Your task to perform on an android device: Open Amazon Image 0: 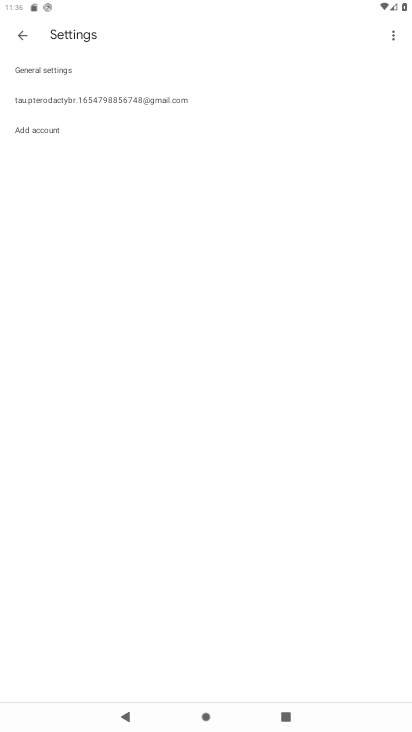
Step 0: press home button
Your task to perform on an android device: Open Amazon Image 1: 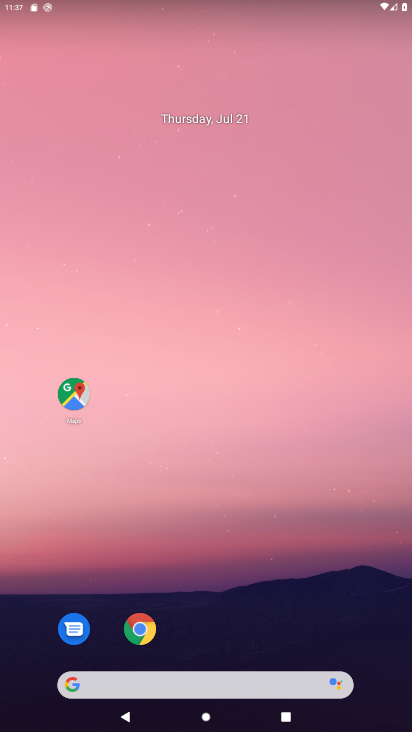
Step 1: click (143, 635)
Your task to perform on an android device: Open Amazon Image 2: 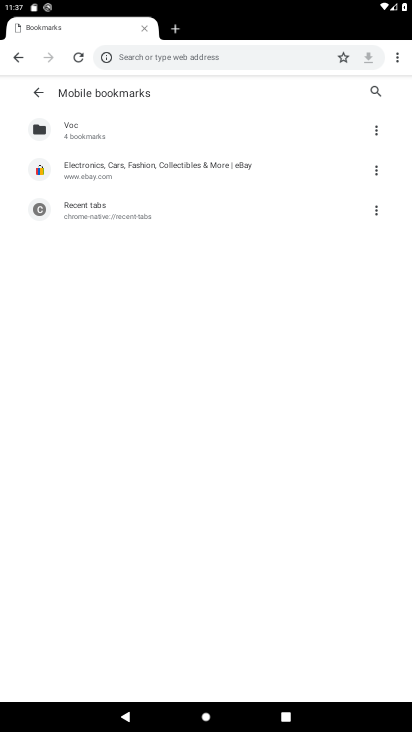
Step 2: click (165, 50)
Your task to perform on an android device: Open Amazon Image 3: 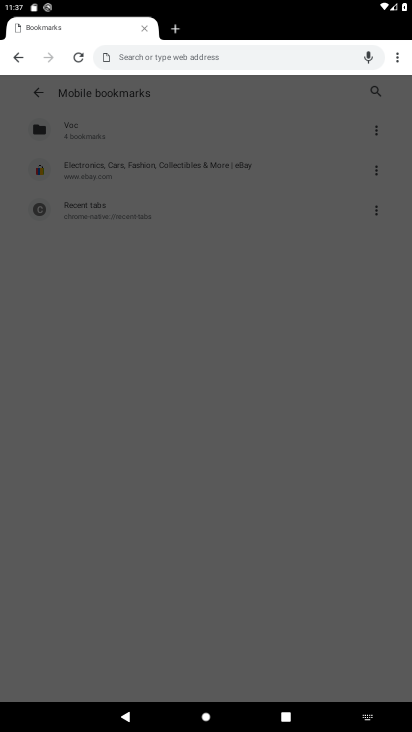
Step 3: type "Amazon"
Your task to perform on an android device: Open Amazon Image 4: 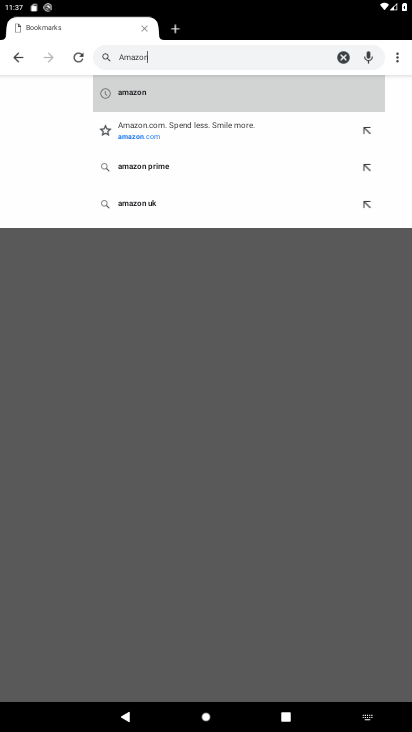
Step 4: click (148, 99)
Your task to perform on an android device: Open Amazon Image 5: 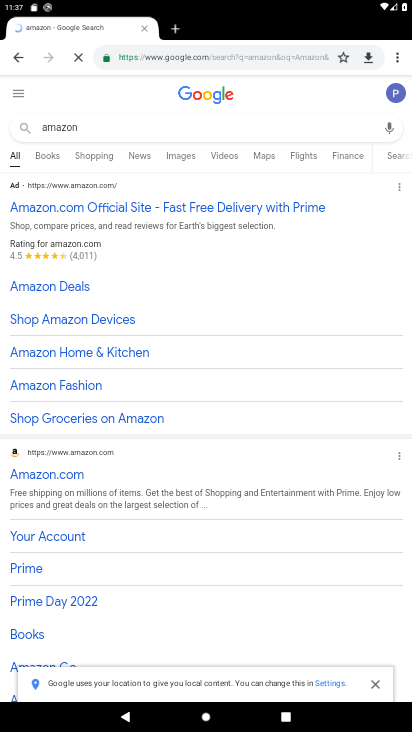
Step 5: task complete